Your task to perform on an android device: remove spam from my inbox in the gmail app Image 0: 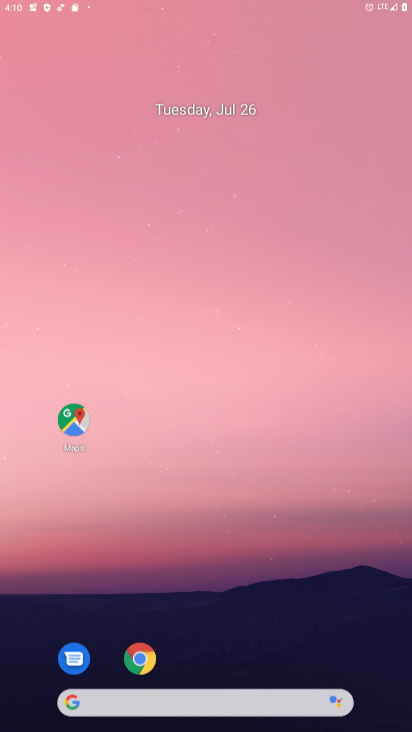
Step 0: press home button
Your task to perform on an android device: remove spam from my inbox in the gmail app Image 1: 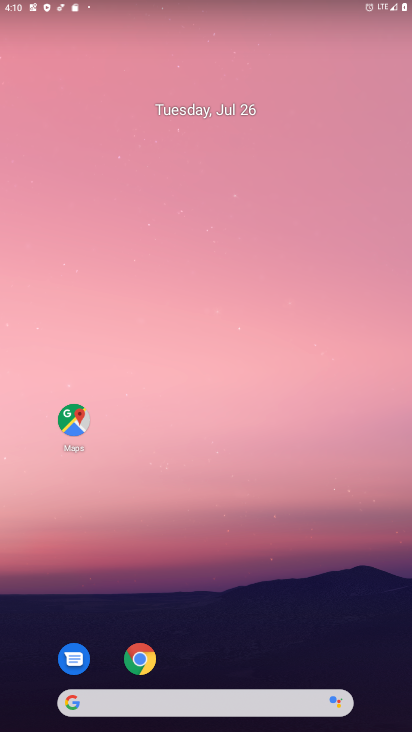
Step 1: drag from (228, 674) to (192, 258)
Your task to perform on an android device: remove spam from my inbox in the gmail app Image 2: 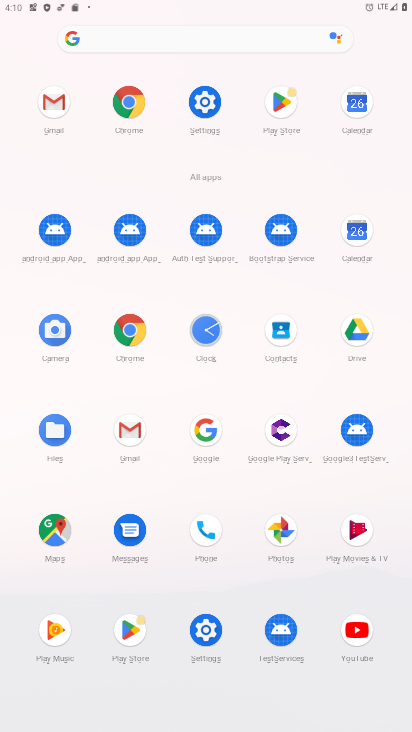
Step 2: click (47, 108)
Your task to perform on an android device: remove spam from my inbox in the gmail app Image 3: 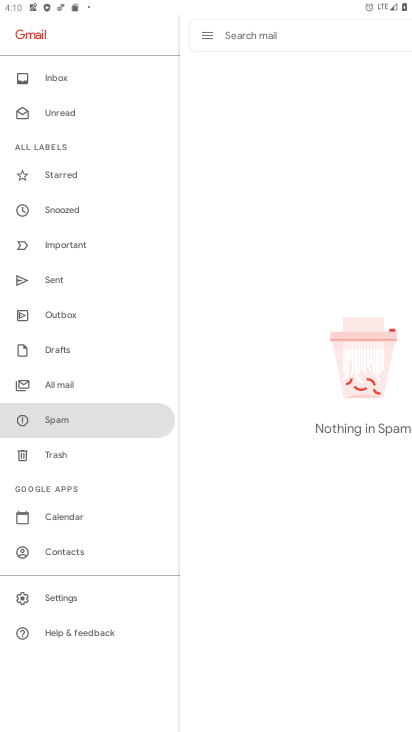
Step 3: click (69, 429)
Your task to perform on an android device: remove spam from my inbox in the gmail app Image 4: 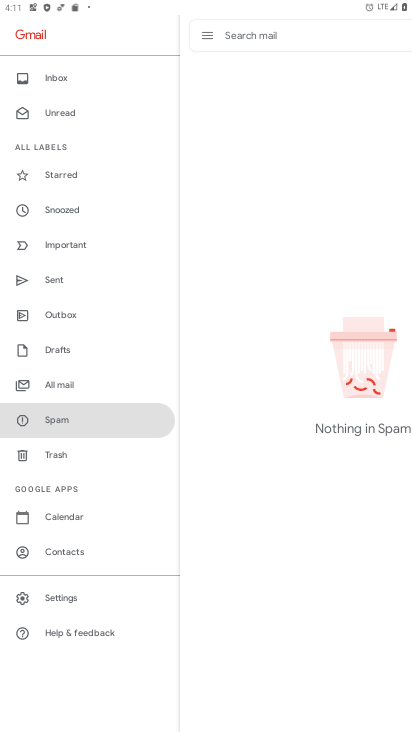
Step 4: task complete